Your task to perform on an android device: Search for a new eyeshadow on Sephora Image 0: 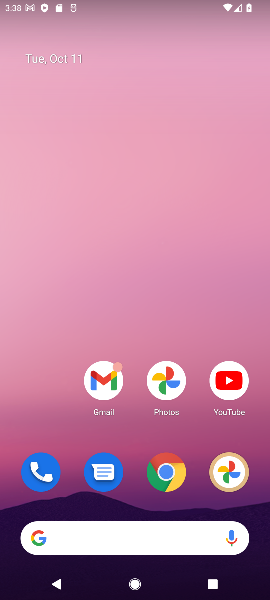
Step 0: drag from (133, 481) to (108, 159)
Your task to perform on an android device: Search for a new eyeshadow on Sephora Image 1: 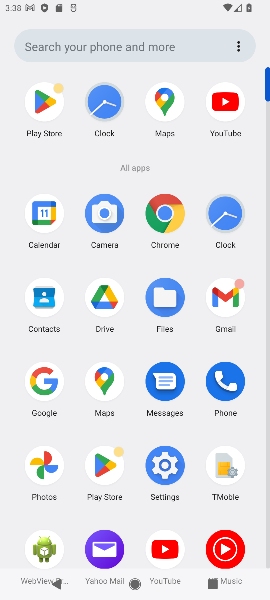
Step 1: click (44, 390)
Your task to perform on an android device: Search for a new eyeshadow on Sephora Image 2: 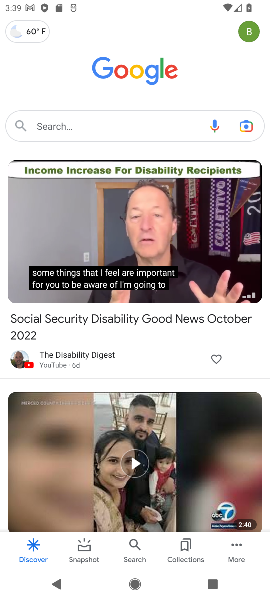
Step 2: click (81, 117)
Your task to perform on an android device: Search for a new eyeshadow on Sephora Image 3: 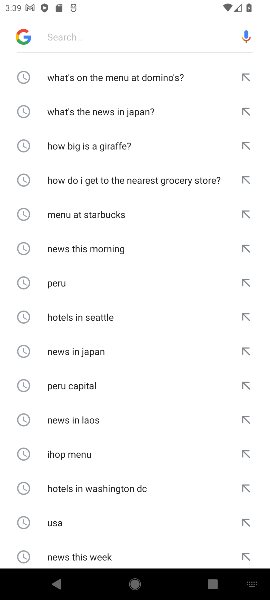
Step 3: type " a new eyeshadow on Sephora"
Your task to perform on an android device: Search for a new eyeshadow on Sephora Image 4: 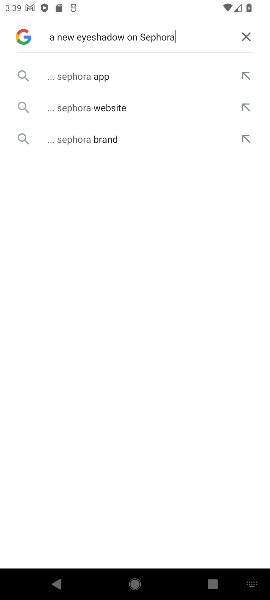
Step 4: click (85, 81)
Your task to perform on an android device: Search for a new eyeshadow on Sephora Image 5: 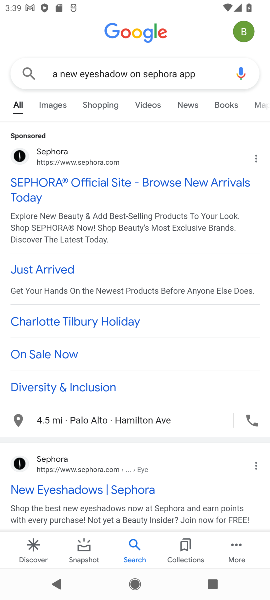
Step 5: task complete